Your task to perform on an android device: check storage Image 0: 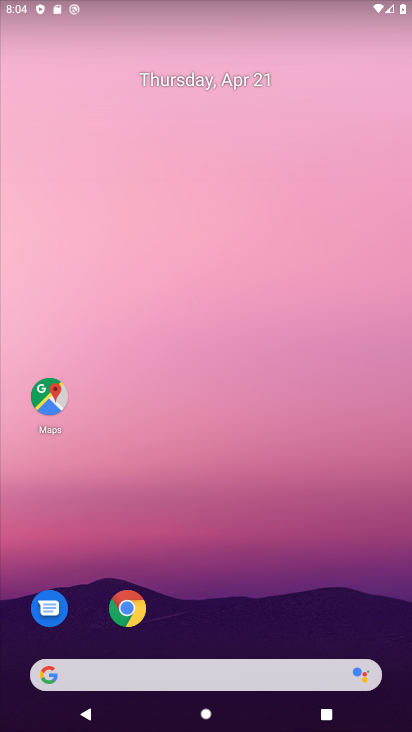
Step 0: drag from (209, 639) to (193, 132)
Your task to perform on an android device: check storage Image 1: 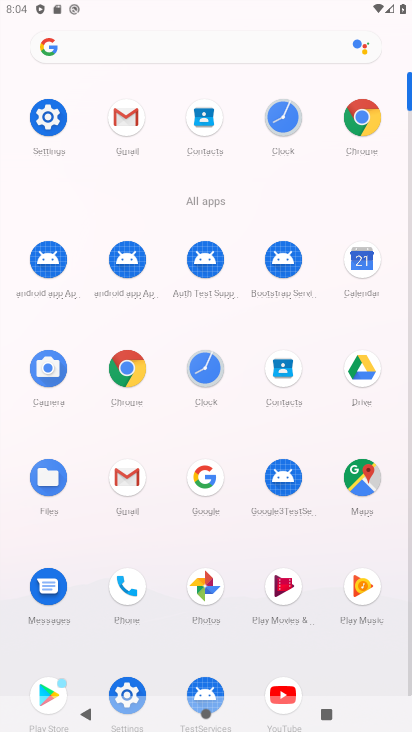
Step 1: click (56, 121)
Your task to perform on an android device: check storage Image 2: 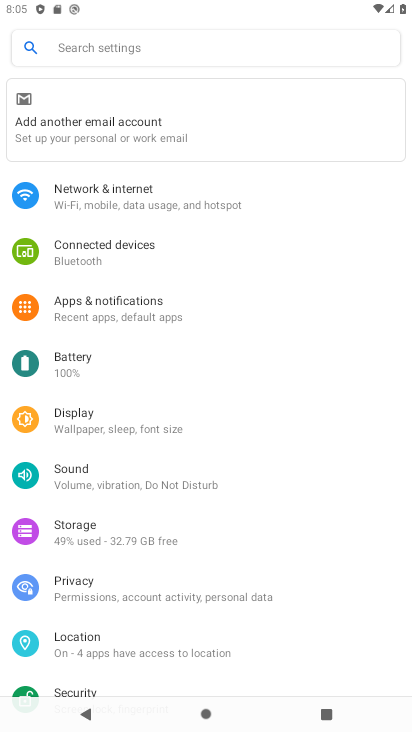
Step 2: click (182, 554)
Your task to perform on an android device: check storage Image 3: 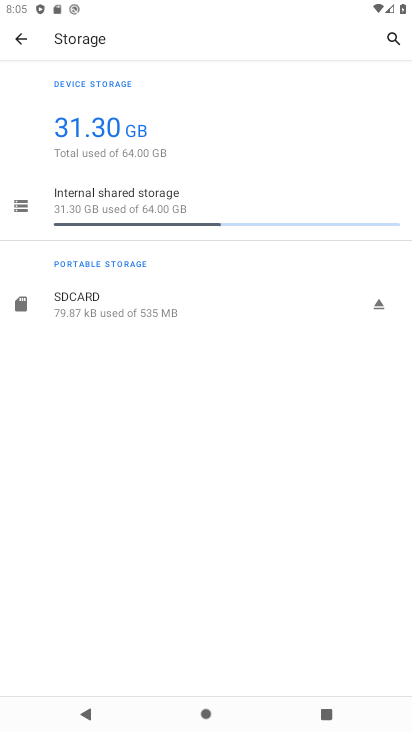
Step 3: task complete